Your task to perform on an android device: Add "logitech g903" to the cart on bestbuy, then select checkout. Image 0: 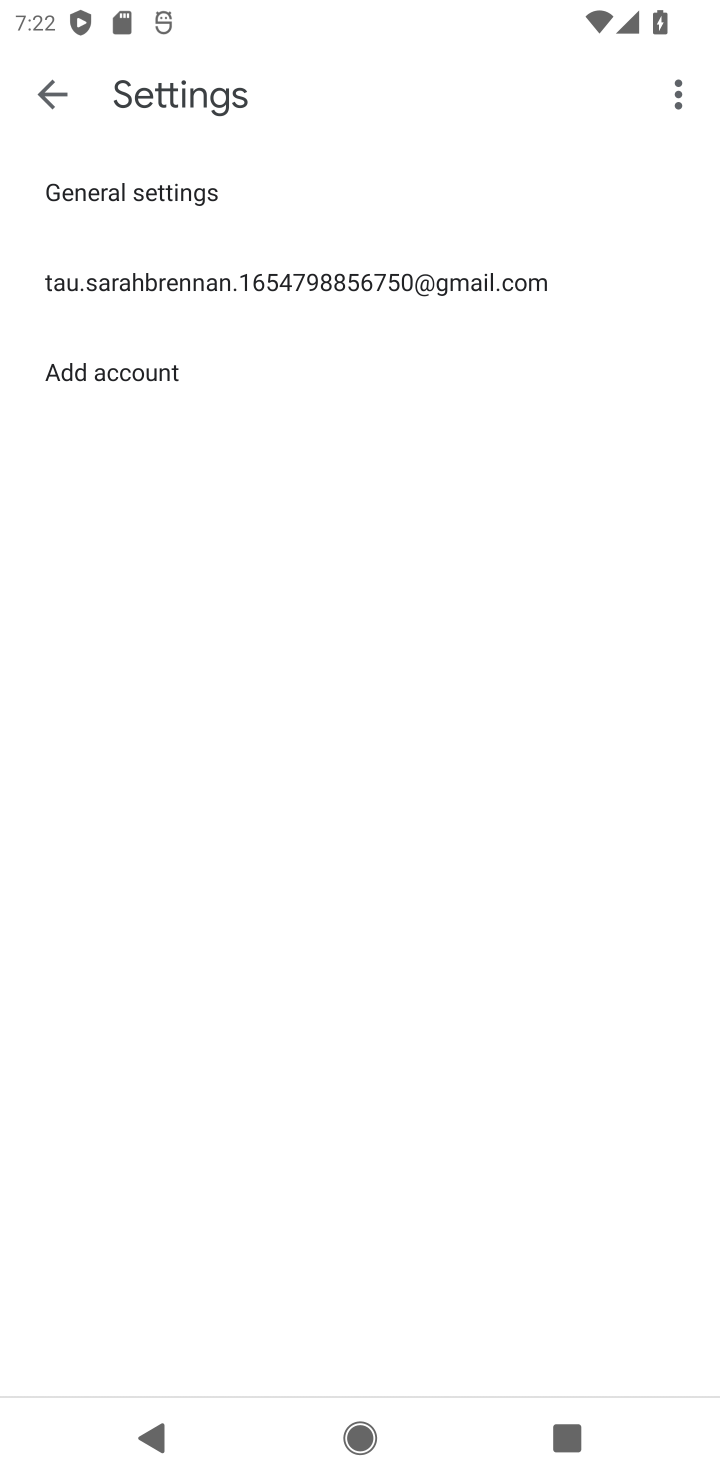
Step 0: press home button
Your task to perform on an android device: Add "logitech g903" to the cart on bestbuy, then select checkout. Image 1: 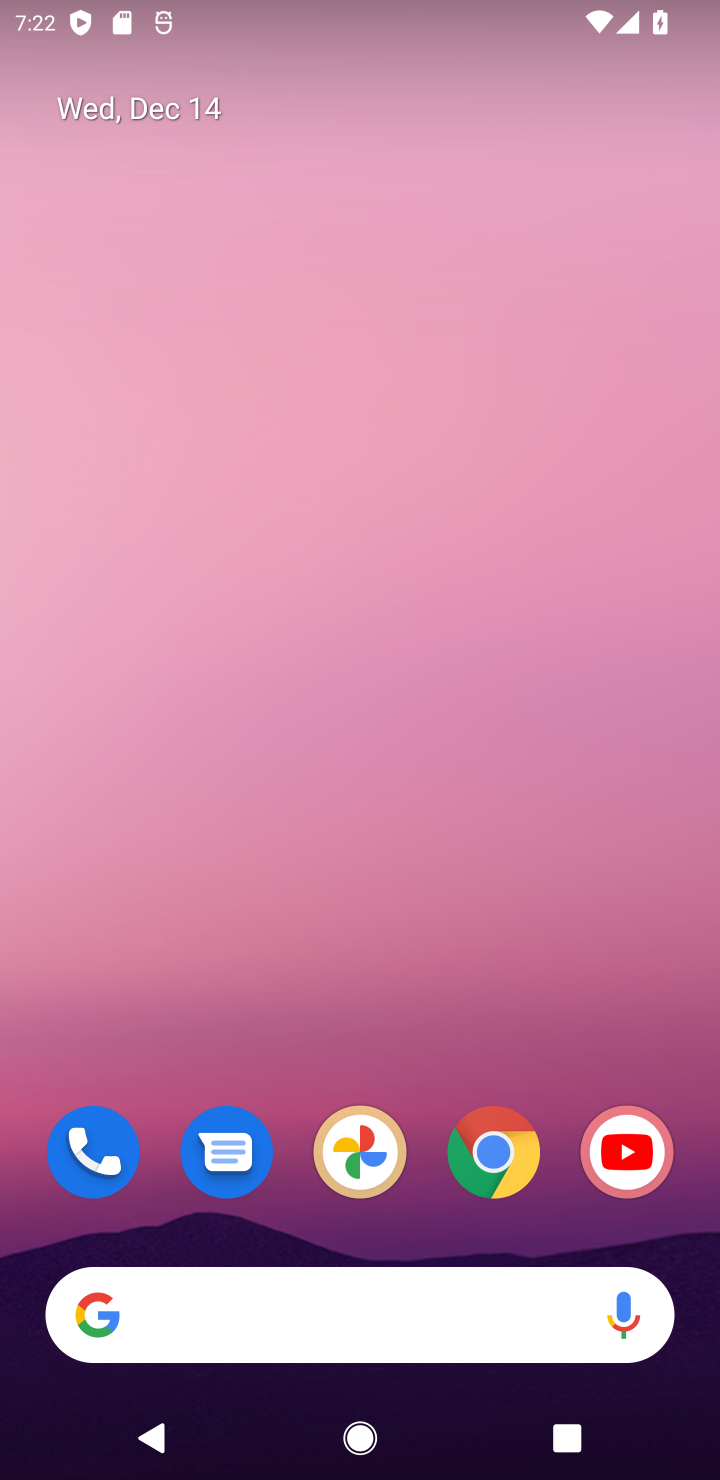
Step 1: click (499, 1177)
Your task to perform on an android device: Add "logitech g903" to the cart on bestbuy, then select checkout. Image 2: 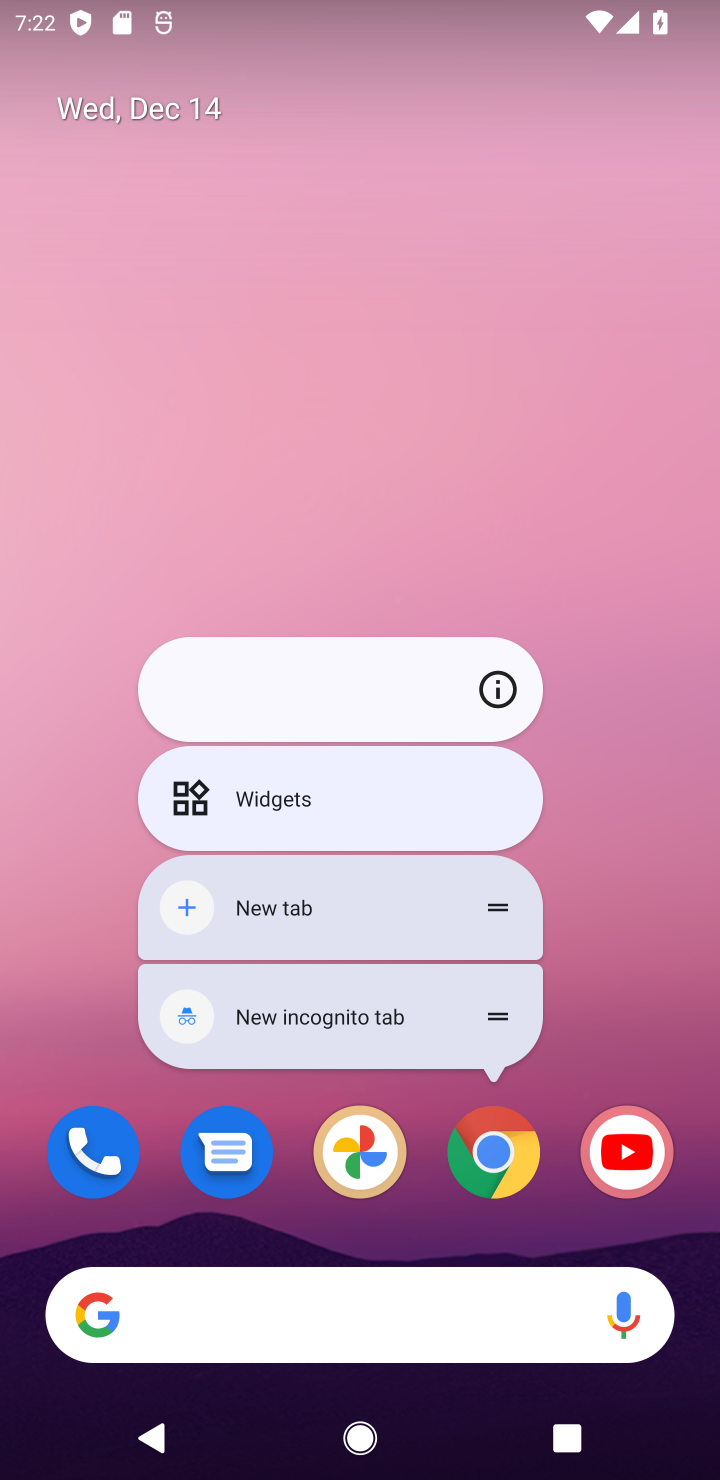
Step 2: click (498, 1163)
Your task to perform on an android device: Add "logitech g903" to the cart on bestbuy, then select checkout. Image 3: 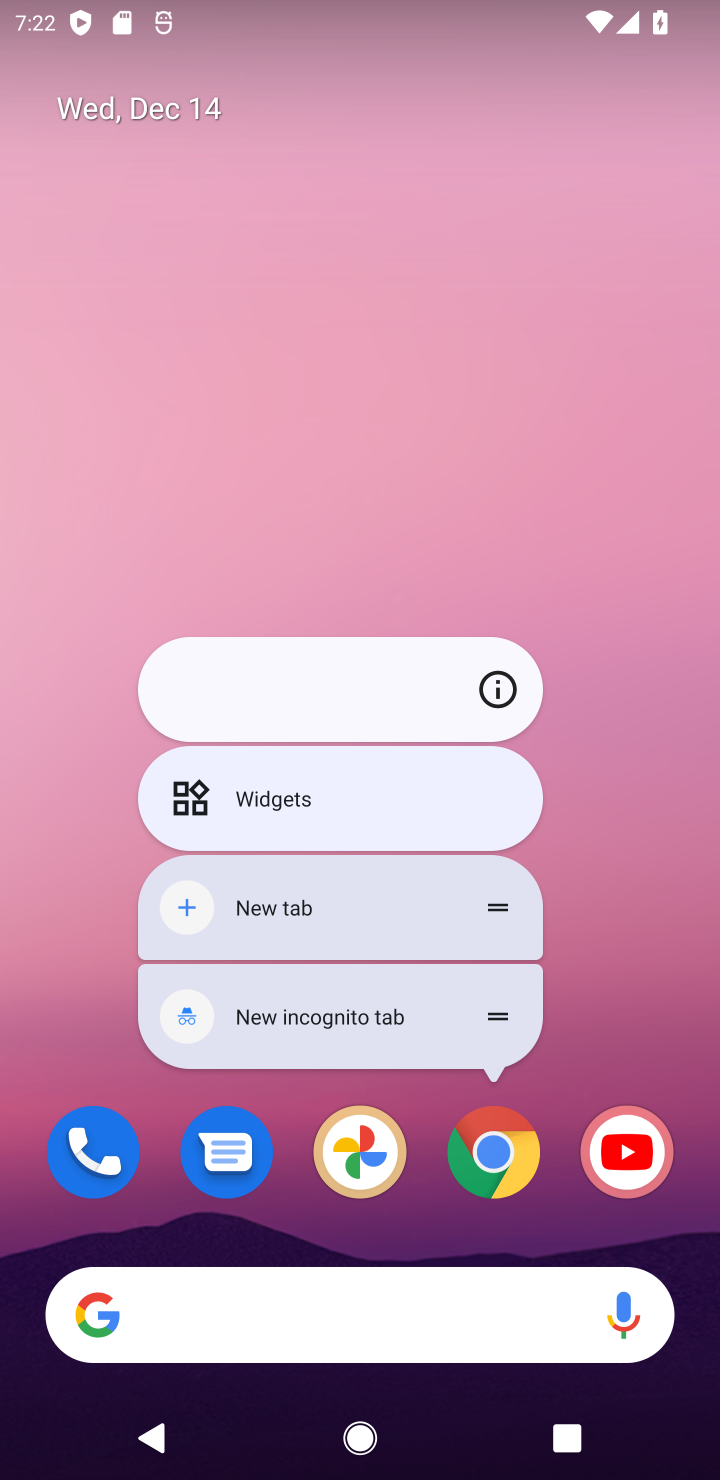
Step 3: click (498, 1163)
Your task to perform on an android device: Add "logitech g903" to the cart on bestbuy, then select checkout. Image 4: 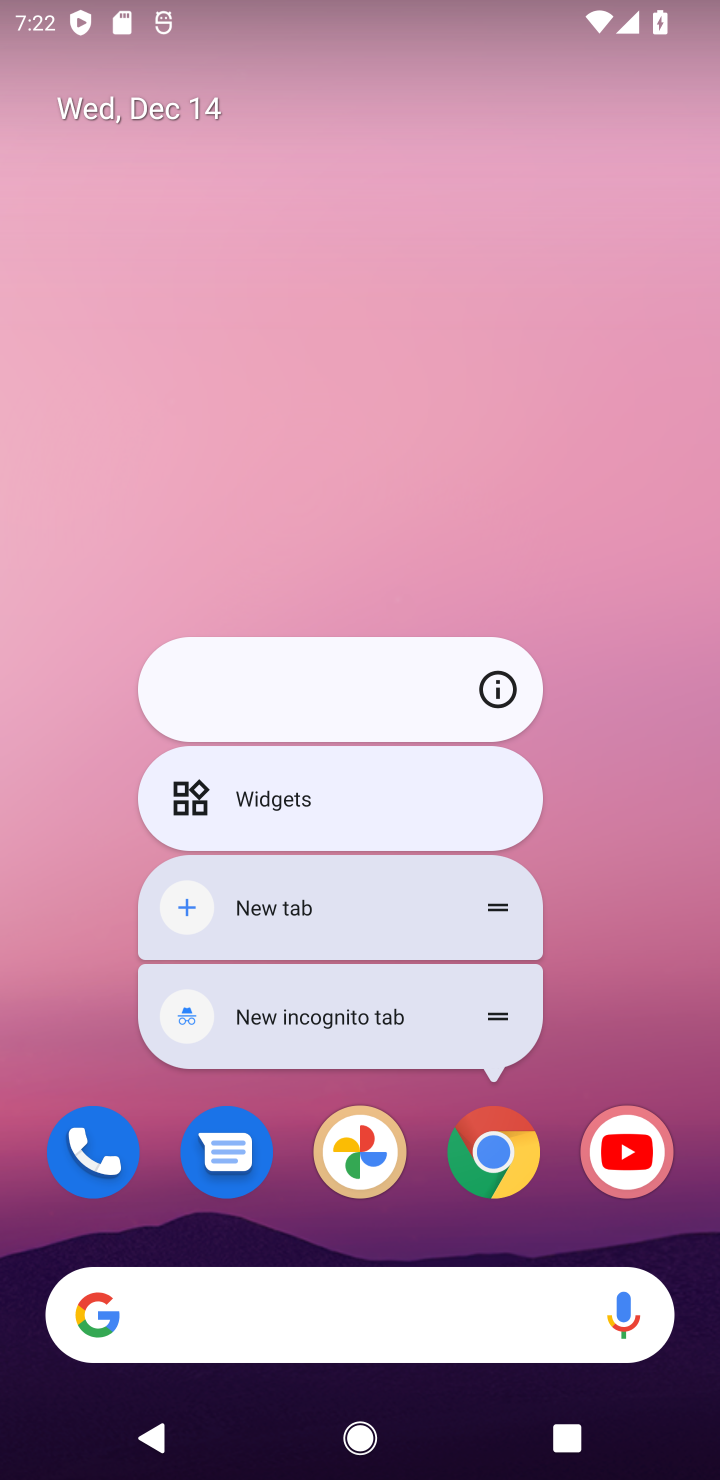
Step 4: click (706, 795)
Your task to perform on an android device: Add "logitech g903" to the cart on bestbuy, then select checkout. Image 5: 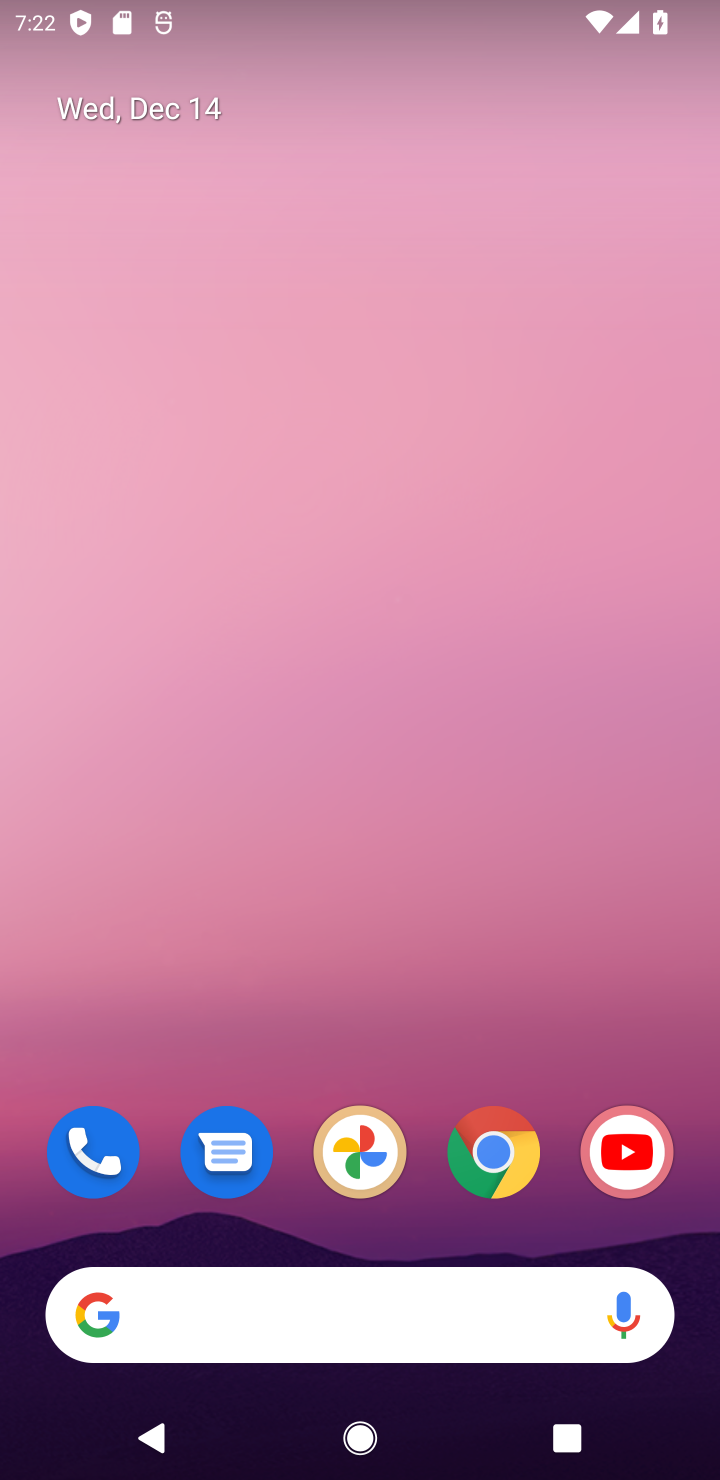
Step 5: click (498, 1159)
Your task to perform on an android device: Add "logitech g903" to the cart on bestbuy, then select checkout. Image 6: 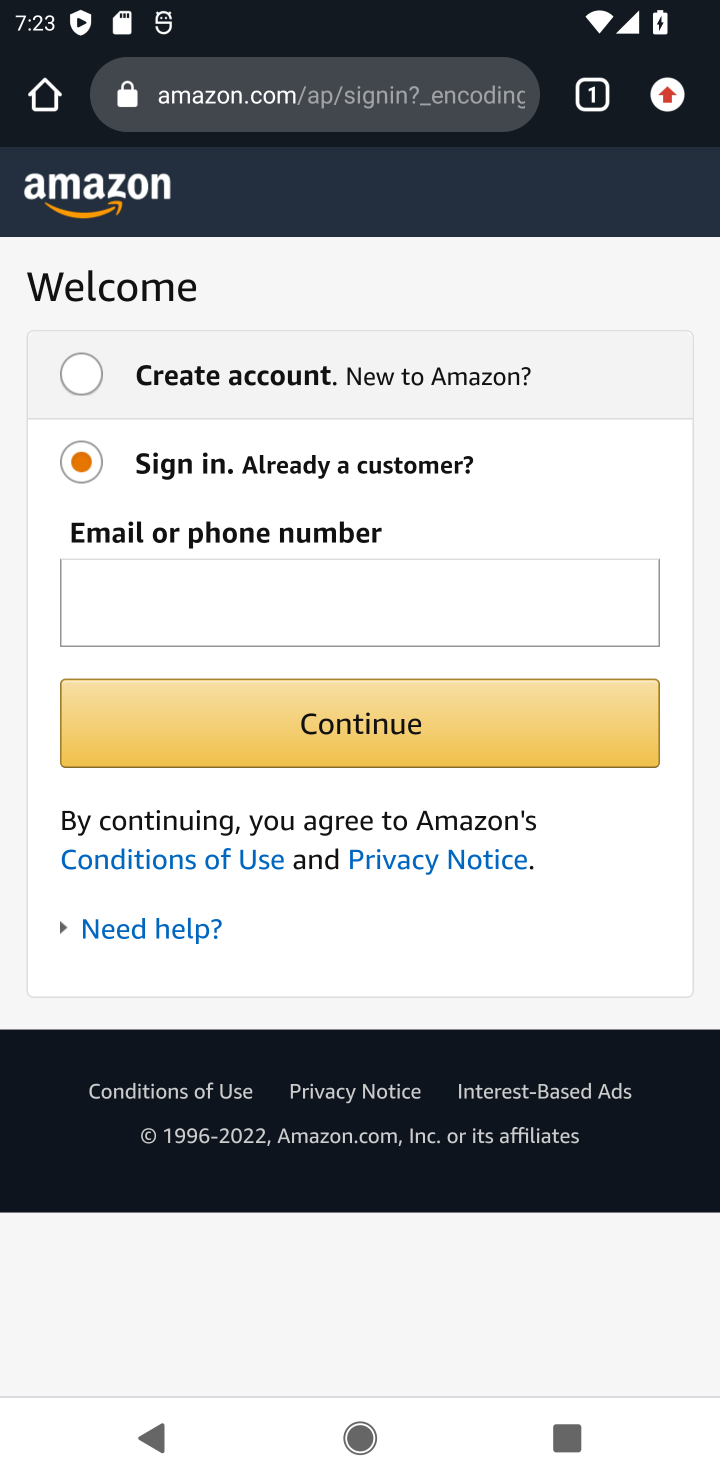
Step 6: click (222, 109)
Your task to perform on an android device: Add "logitech g903" to the cart on bestbuy, then select checkout. Image 7: 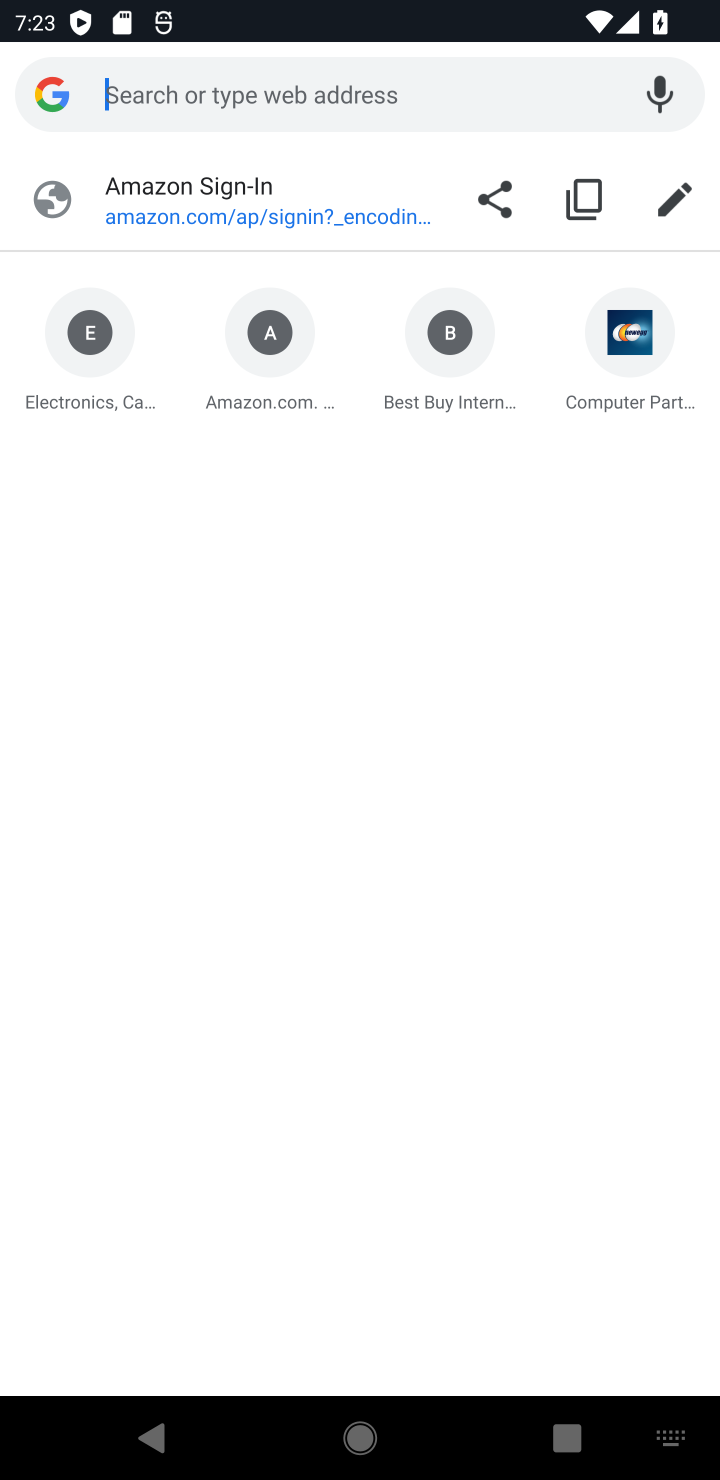
Step 7: click (437, 327)
Your task to perform on an android device: Add "logitech g903" to the cart on bestbuy, then select checkout. Image 8: 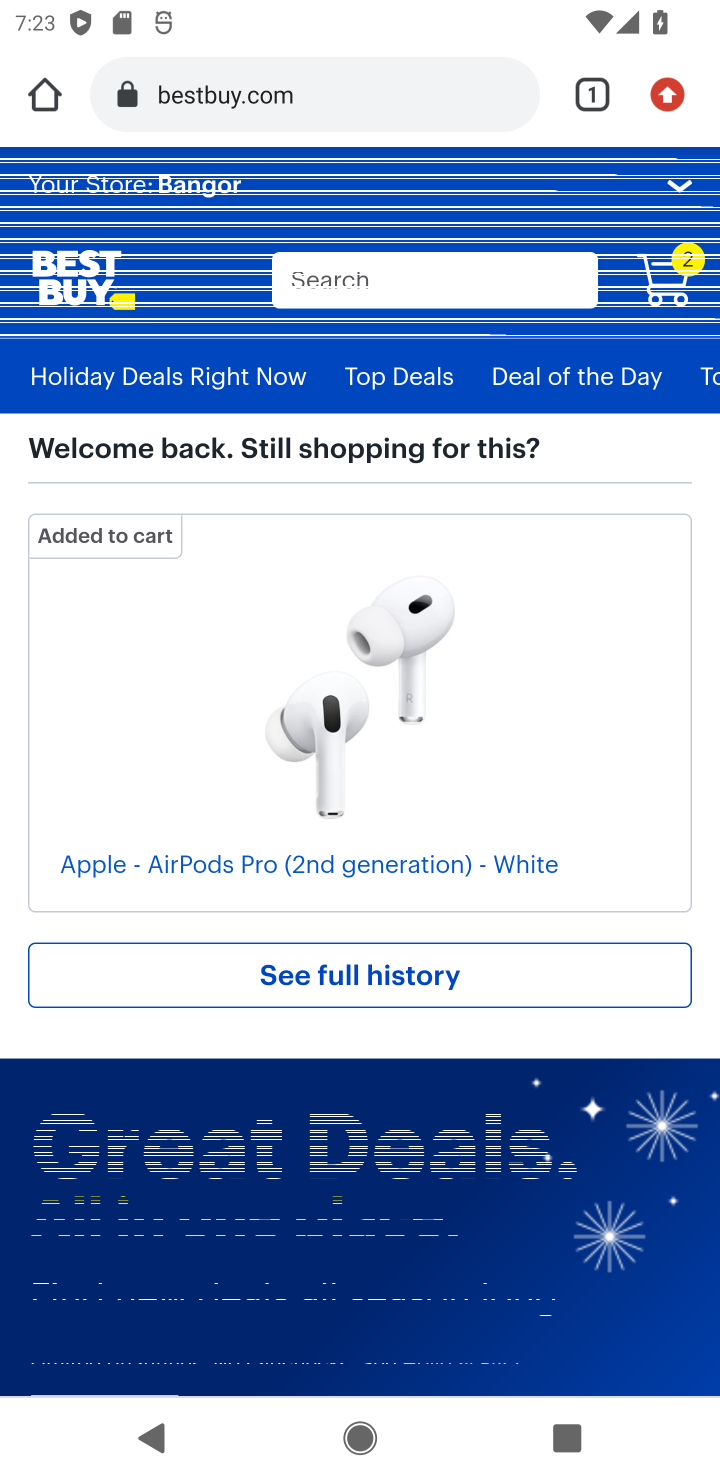
Step 8: click (333, 281)
Your task to perform on an android device: Add "logitech g903" to the cart on bestbuy, then select checkout. Image 9: 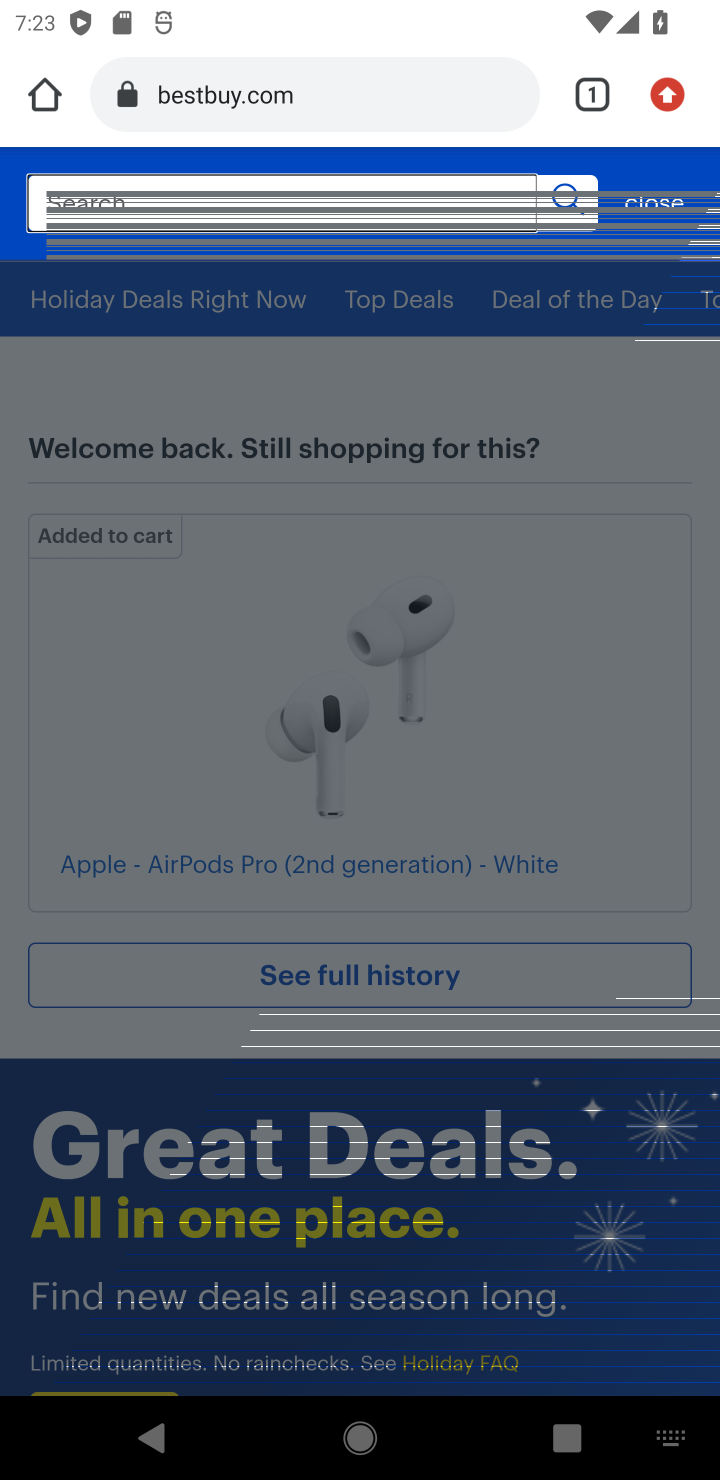
Step 9: type "logitech g903"
Your task to perform on an android device: Add "logitech g903" to the cart on bestbuy, then select checkout. Image 10: 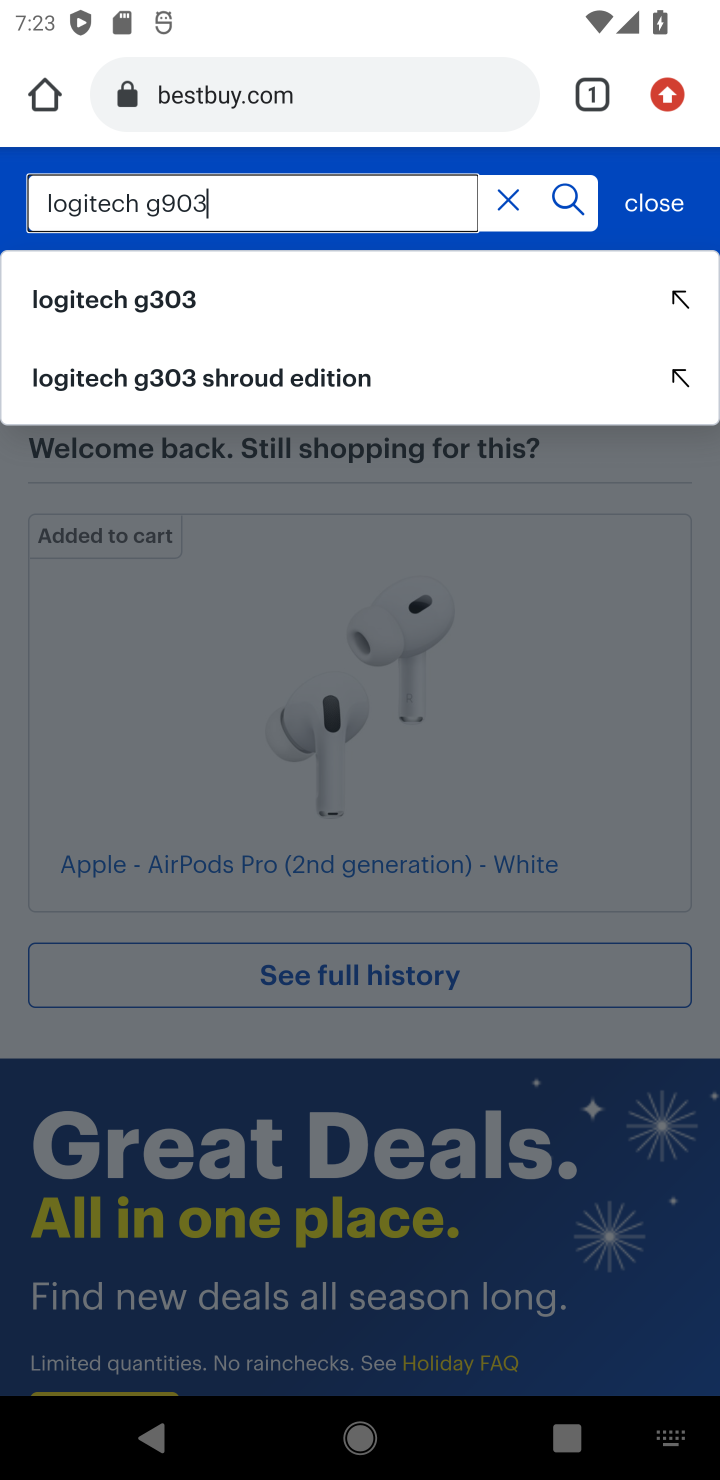
Step 10: click (565, 196)
Your task to perform on an android device: Add "logitech g903" to the cart on bestbuy, then select checkout. Image 11: 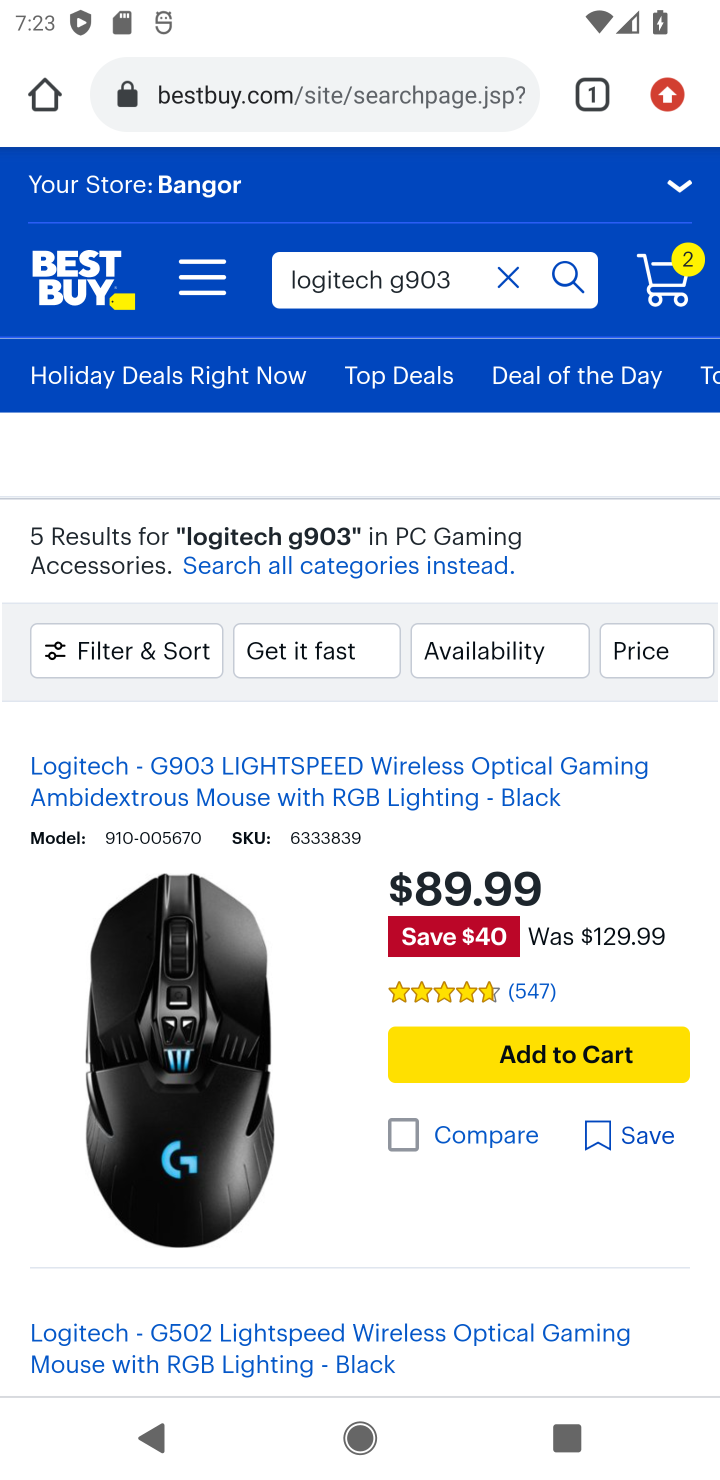
Step 11: drag from (212, 1083) to (223, 870)
Your task to perform on an android device: Add "logitech g903" to the cart on bestbuy, then select checkout. Image 12: 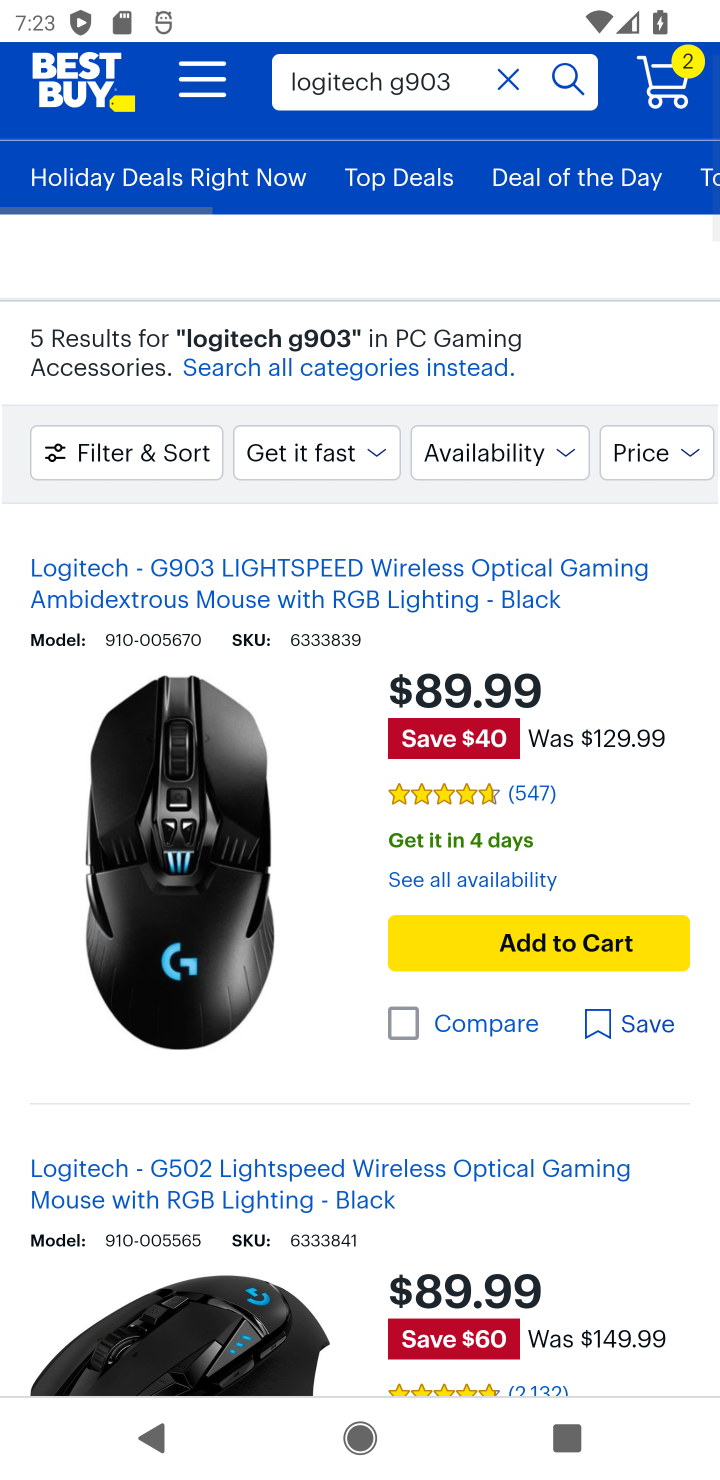
Step 12: click (223, 870)
Your task to perform on an android device: Add "logitech g903" to the cart on bestbuy, then select checkout. Image 13: 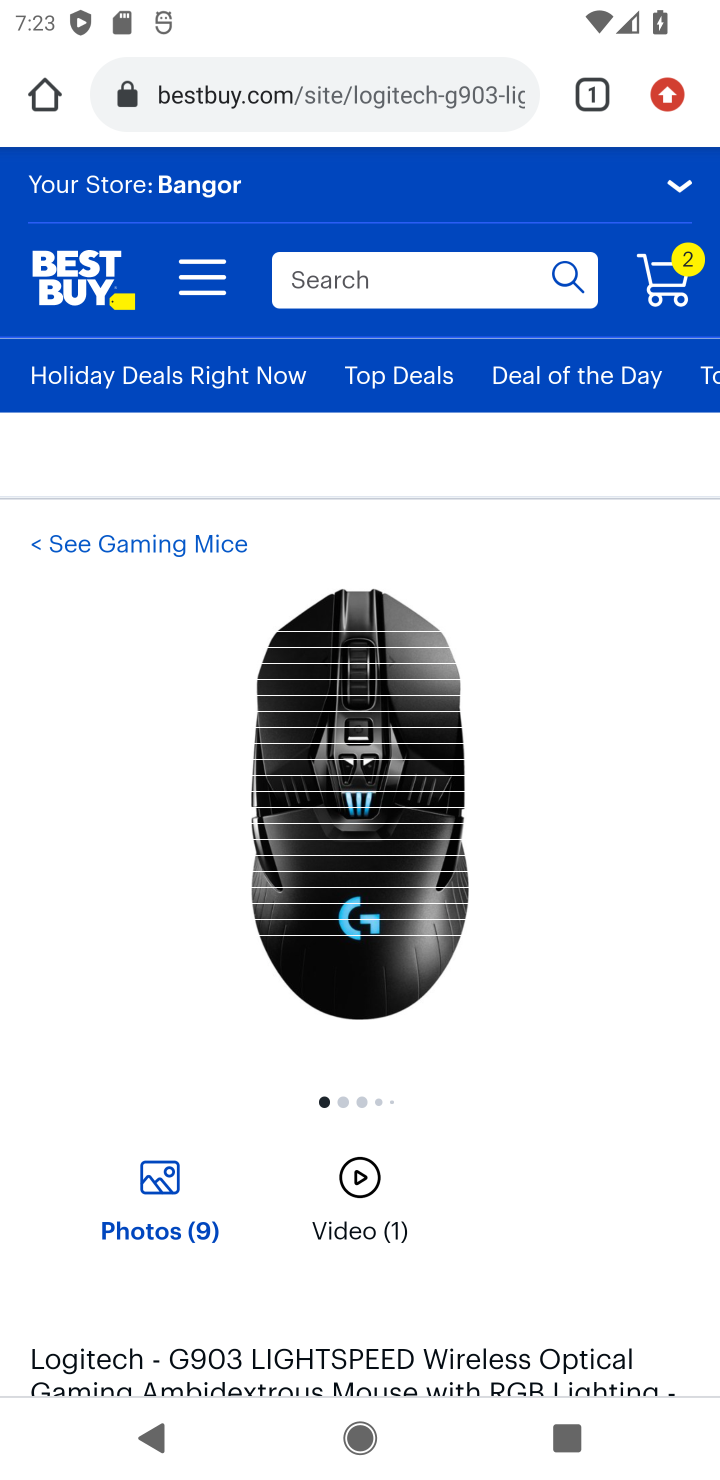
Step 13: drag from (396, 1159) to (458, 630)
Your task to perform on an android device: Add "logitech g903" to the cart on bestbuy, then select checkout. Image 14: 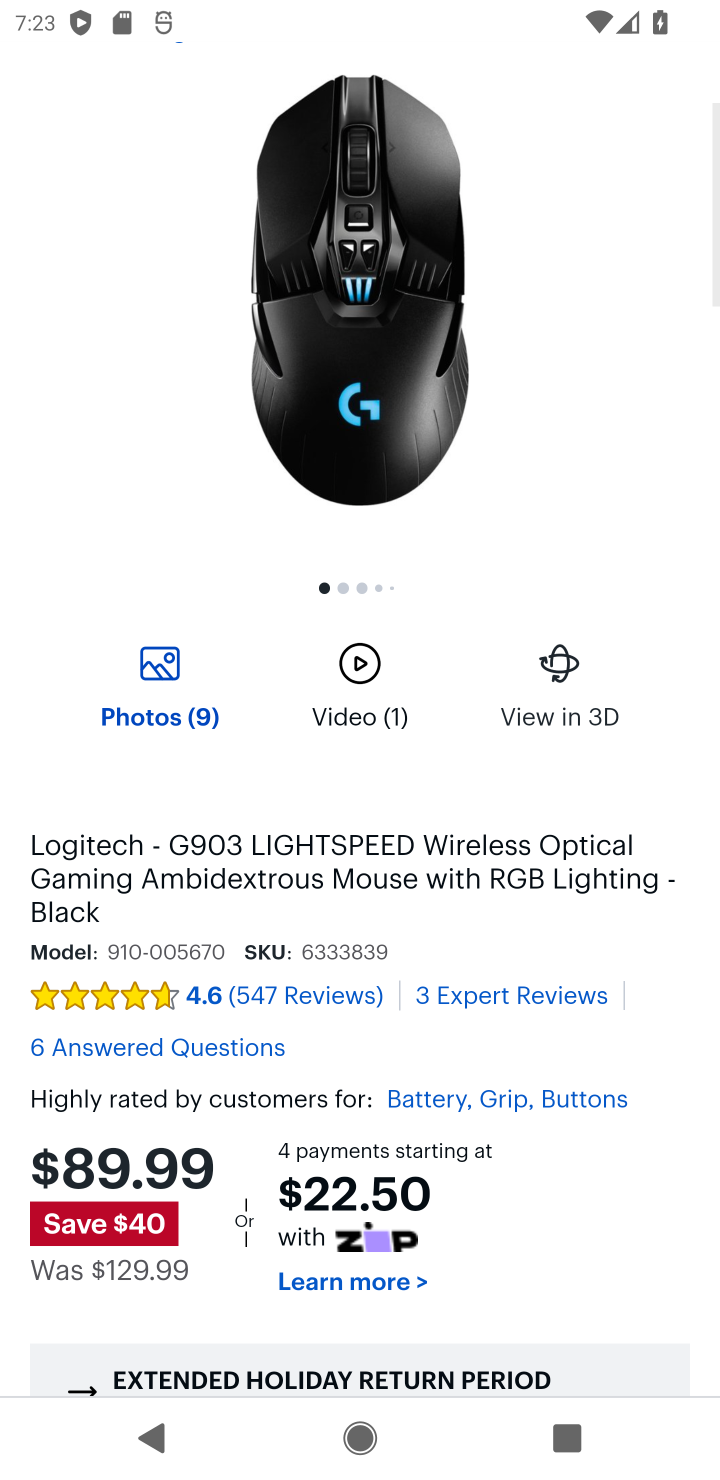
Step 14: drag from (364, 1229) to (421, 619)
Your task to perform on an android device: Add "logitech g903" to the cart on bestbuy, then select checkout. Image 15: 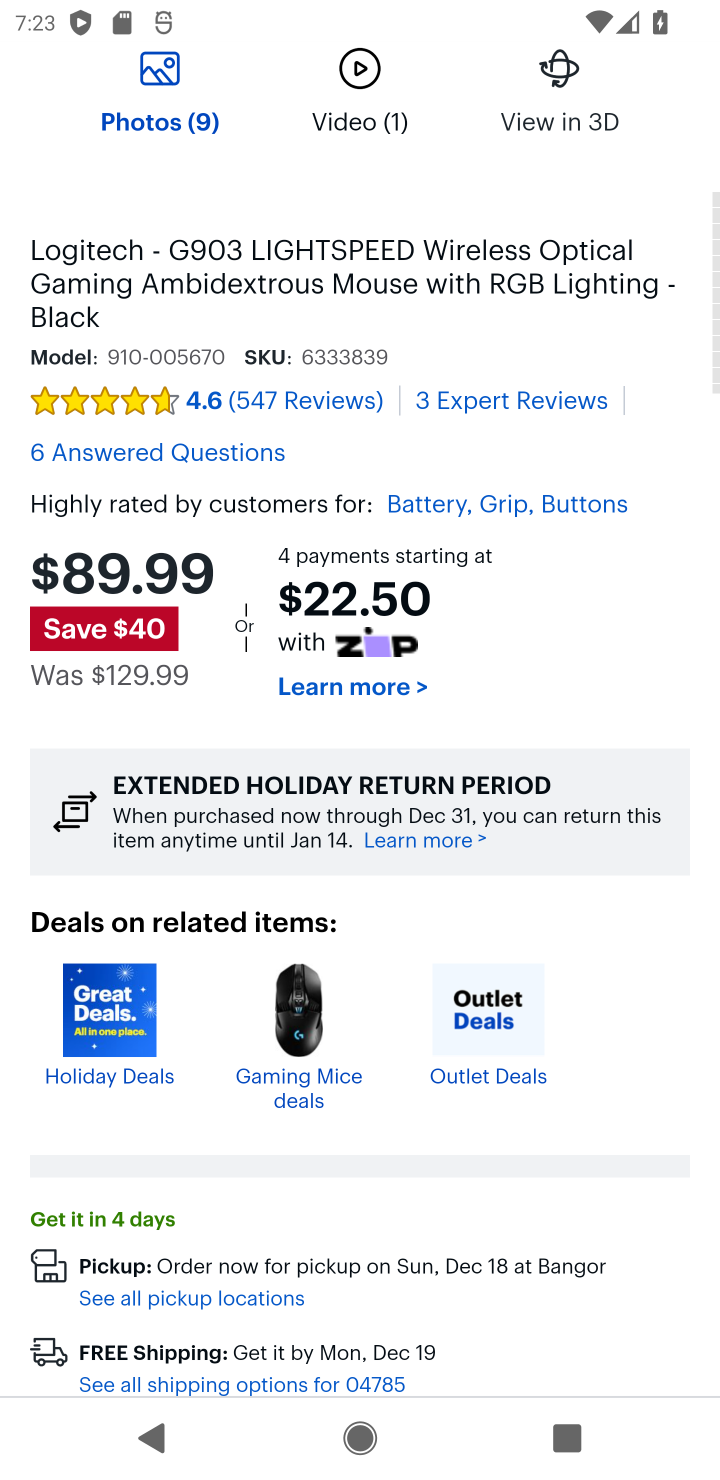
Step 15: drag from (361, 1141) to (365, 633)
Your task to perform on an android device: Add "logitech g903" to the cart on bestbuy, then select checkout. Image 16: 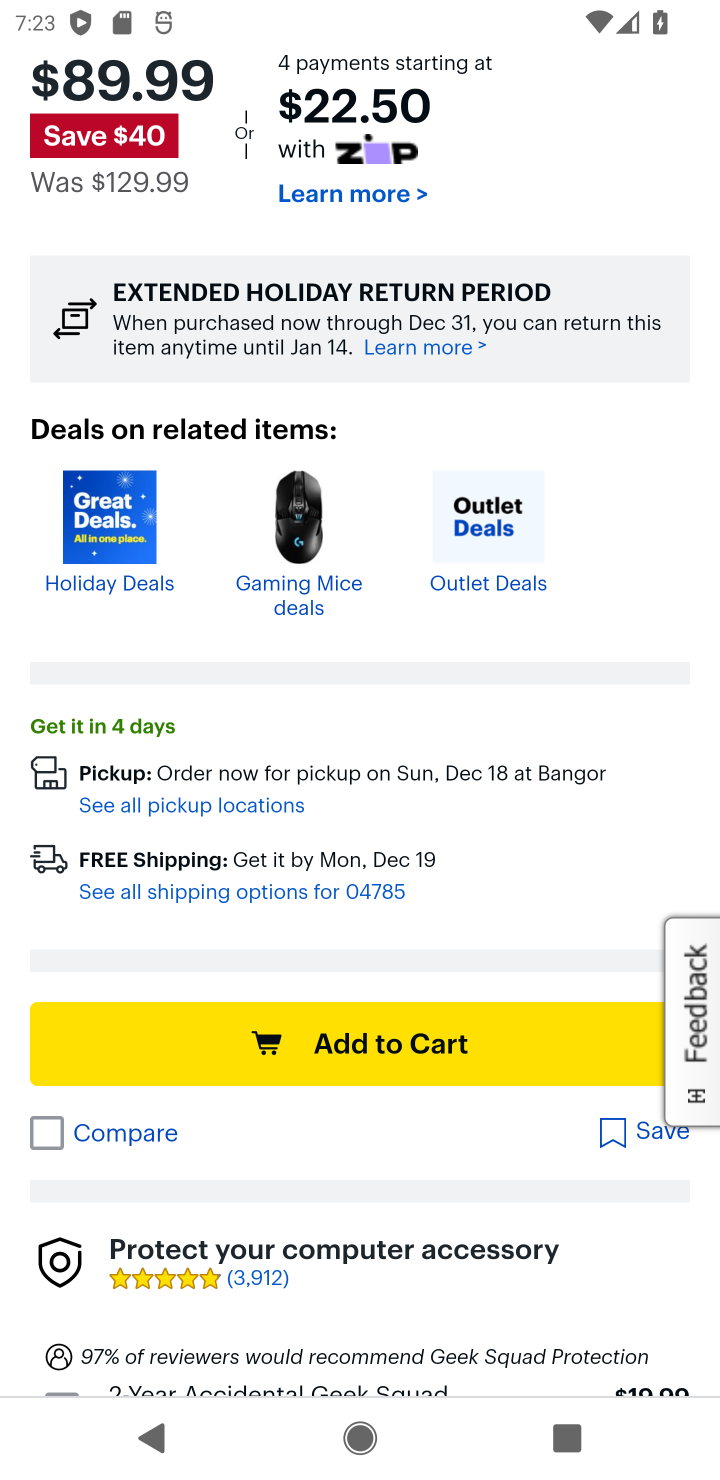
Step 16: click (364, 1049)
Your task to perform on an android device: Add "logitech g903" to the cart on bestbuy, then select checkout. Image 17: 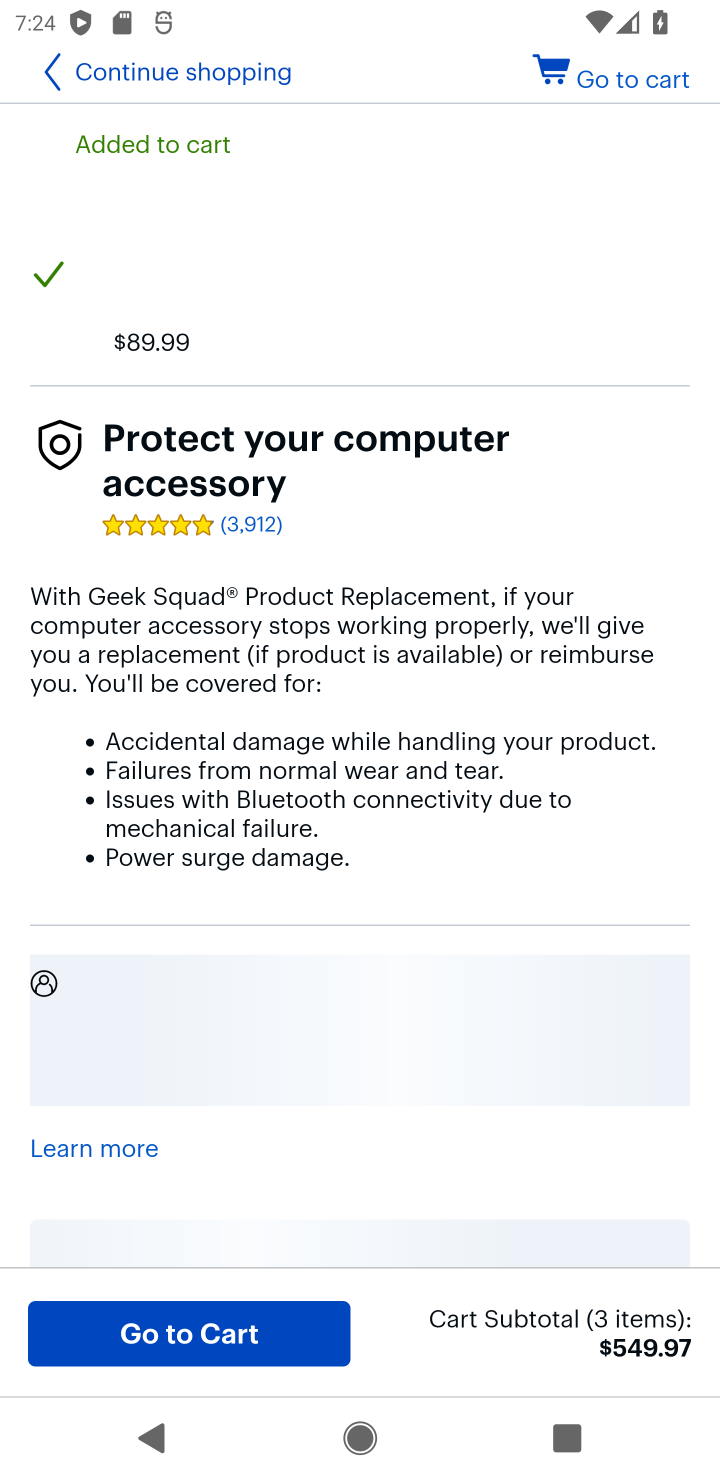
Step 17: click (648, 85)
Your task to perform on an android device: Add "logitech g903" to the cart on bestbuy, then select checkout. Image 18: 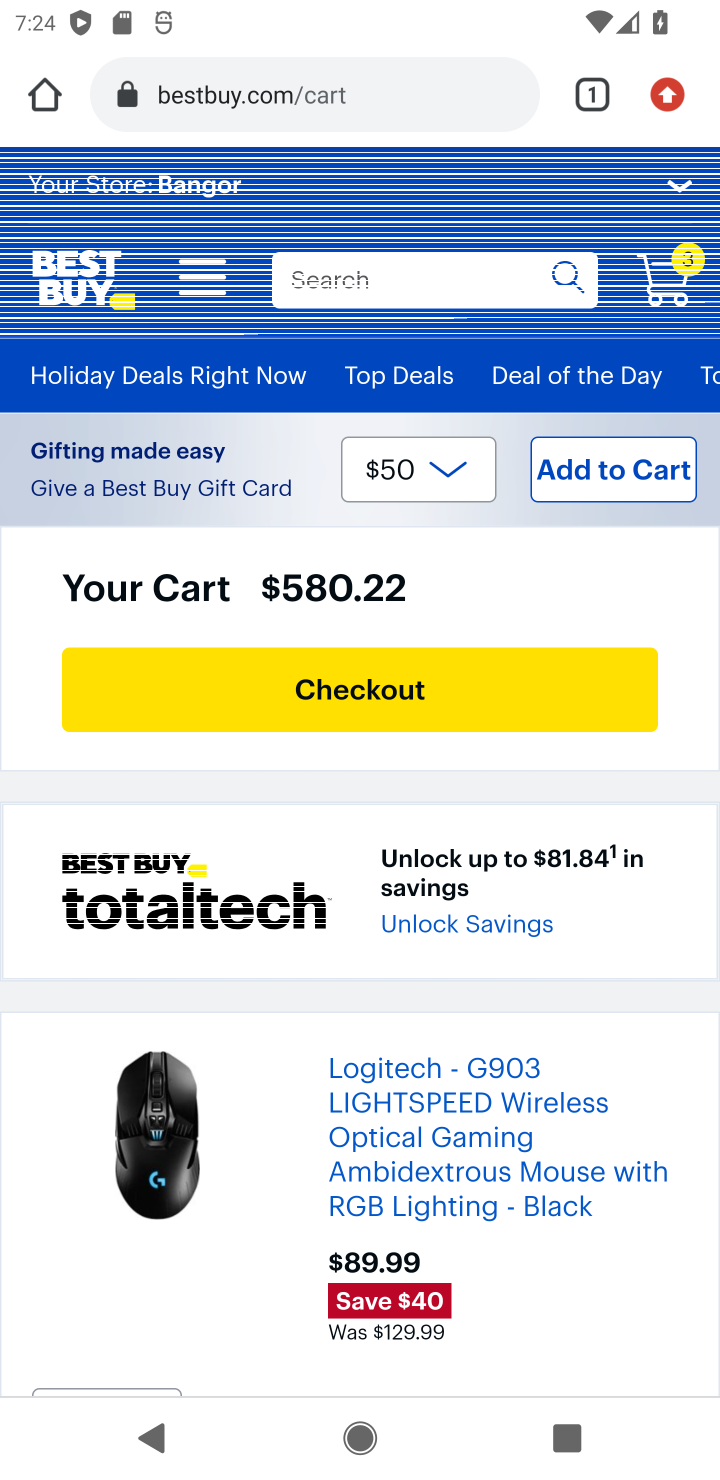
Step 18: click (341, 696)
Your task to perform on an android device: Add "logitech g903" to the cart on bestbuy, then select checkout. Image 19: 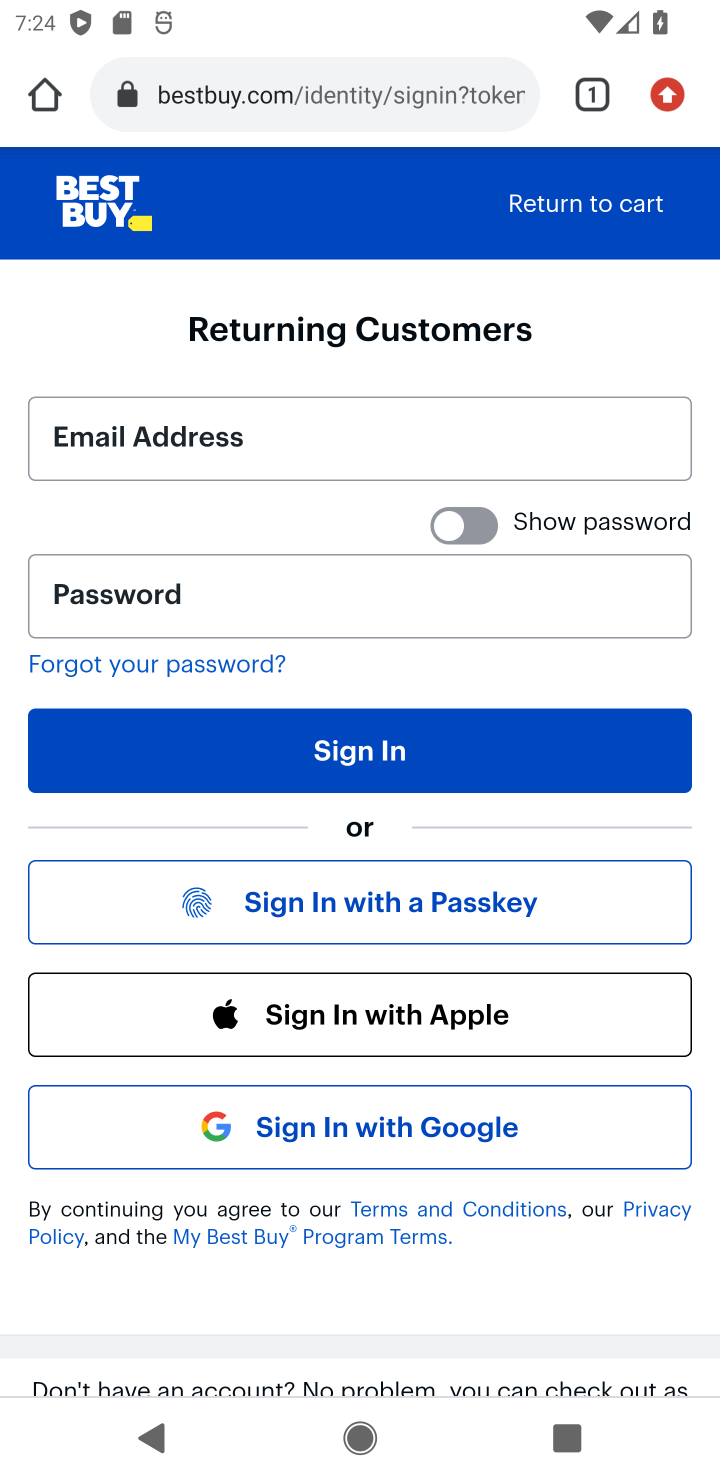
Step 19: task complete